Your task to perform on an android device: open app "The Home Depot" (install if not already installed) and enter user name: "taproot@icloud.com" and password: "executions" Image 0: 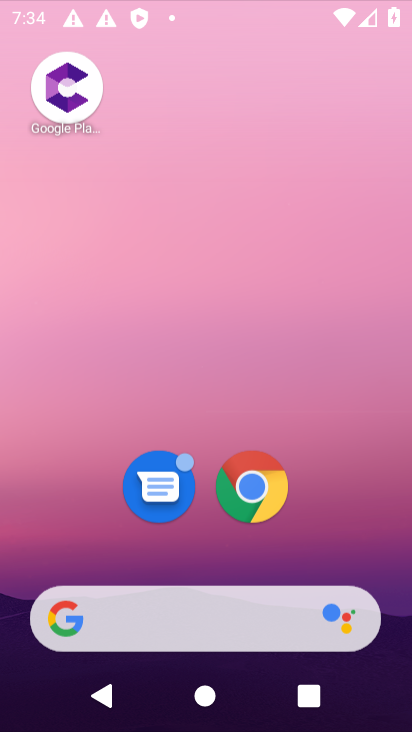
Step 0: click (269, 0)
Your task to perform on an android device: open app "The Home Depot" (install if not already installed) and enter user name: "taproot@icloud.com" and password: "executions" Image 1: 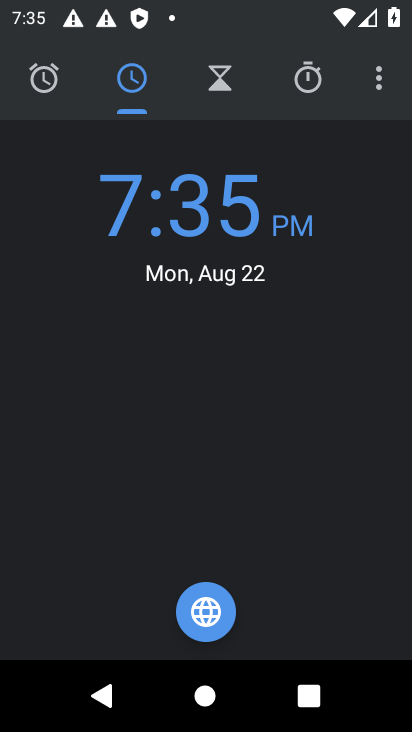
Step 1: press home button
Your task to perform on an android device: open app "The Home Depot" (install if not already installed) and enter user name: "taproot@icloud.com" and password: "executions" Image 2: 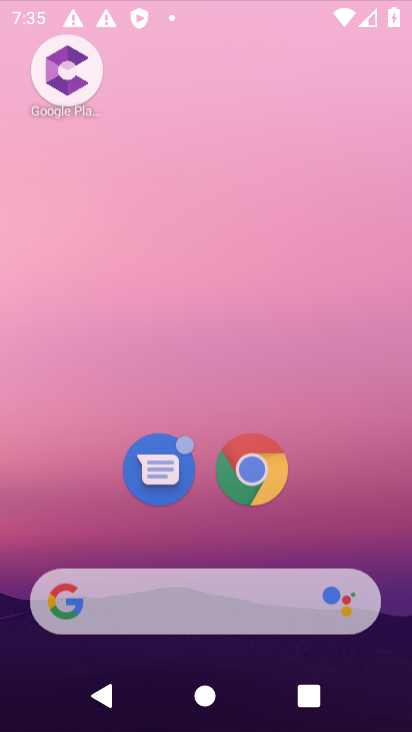
Step 2: click (254, 19)
Your task to perform on an android device: open app "The Home Depot" (install if not already installed) and enter user name: "taproot@icloud.com" and password: "executions" Image 3: 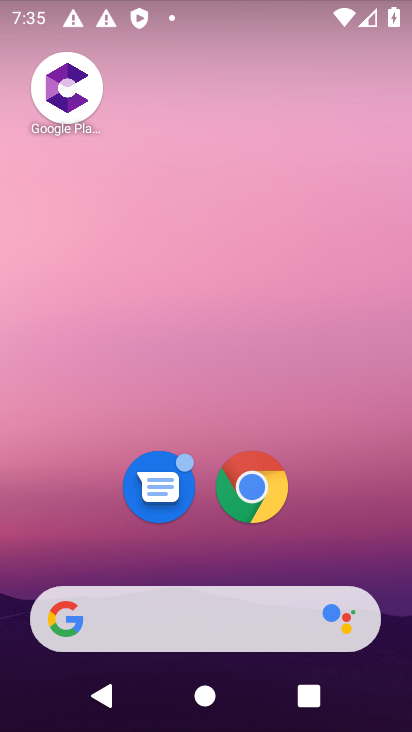
Step 3: drag from (321, 666) to (338, 21)
Your task to perform on an android device: open app "The Home Depot" (install if not already installed) and enter user name: "taproot@icloud.com" and password: "executions" Image 4: 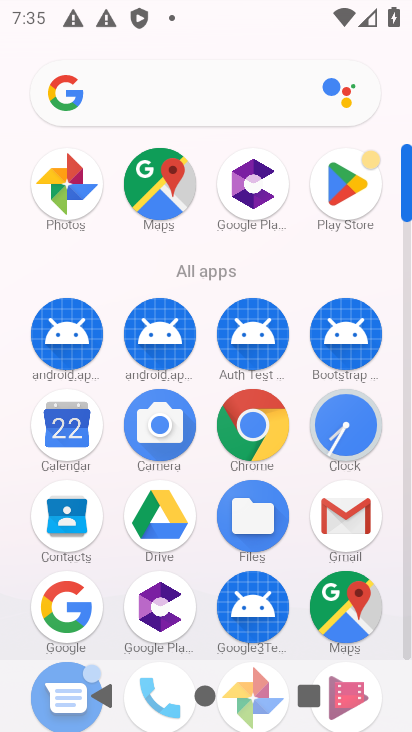
Step 4: click (338, 195)
Your task to perform on an android device: open app "The Home Depot" (install if not already installed) and enter user name: "taproot@icloud.com" and password: "executions" Image 5: 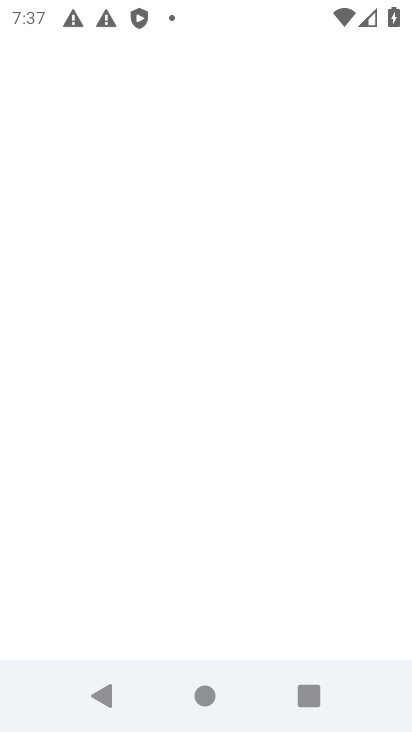
Step 5: task complete